Your task to perform on an android device: See recent photos Image 0: 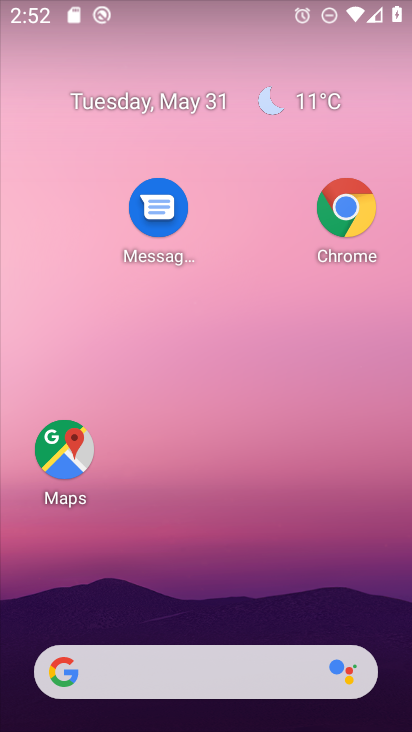
Step 0: drag from (244, 595) to (269, 176)
Your task to perform on an android device: See recent photos Image 1: 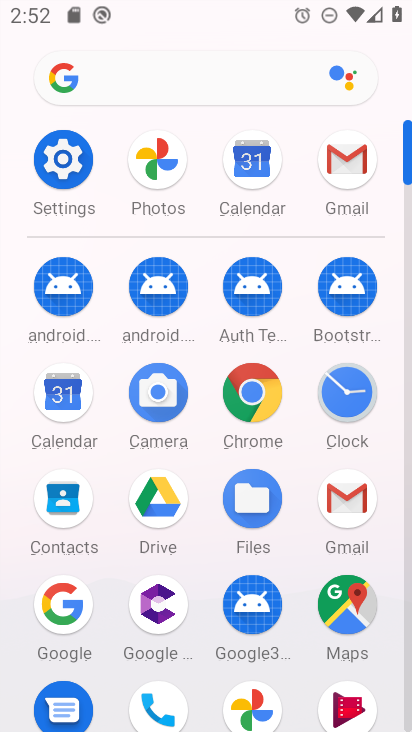
Step 1: click (249, 696)
Your task to perform on an android device: See recent photos Image 2: 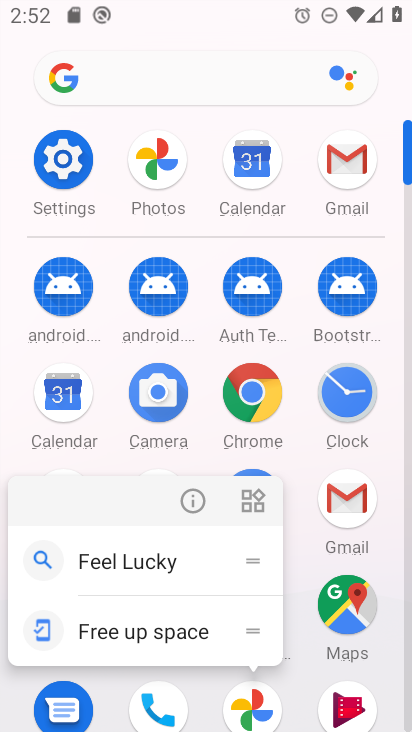
Step 2: click (198, 504)
Your task to perform on an android device: See recent photos Image 3: 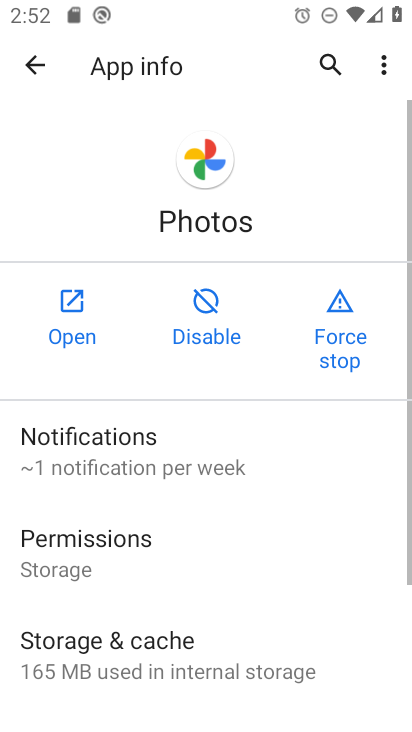
Step 3: click (84, 334)
Your task to perform on an android device: See recent photos Image 4: 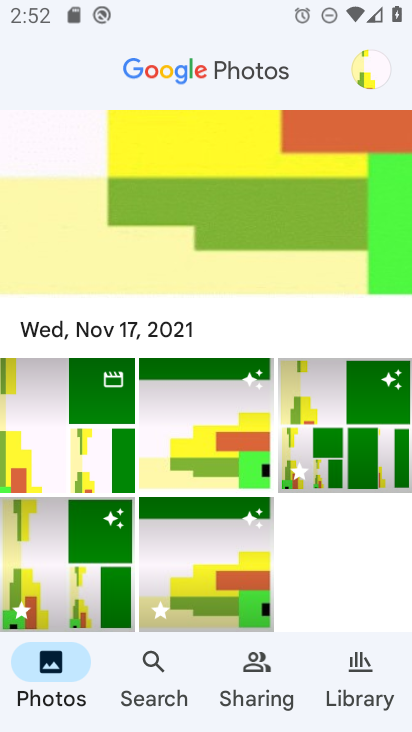
Step 4: click (77, 431)
Your task to perform on an android device: See recent photos Image 5: 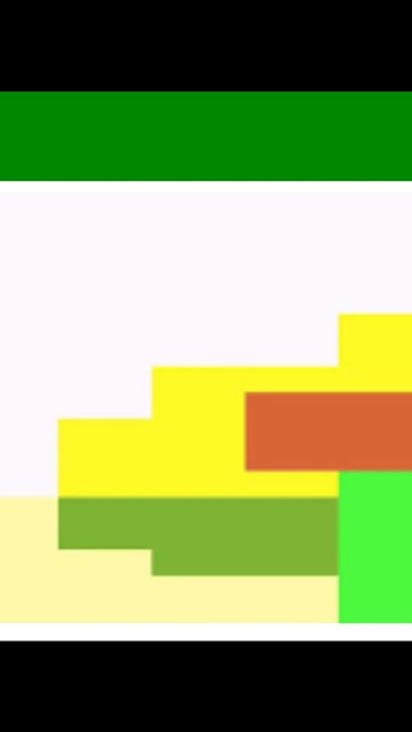
Step 5: task complete